Your task to perform on an android device: empty trash in the gmail app Image 0: 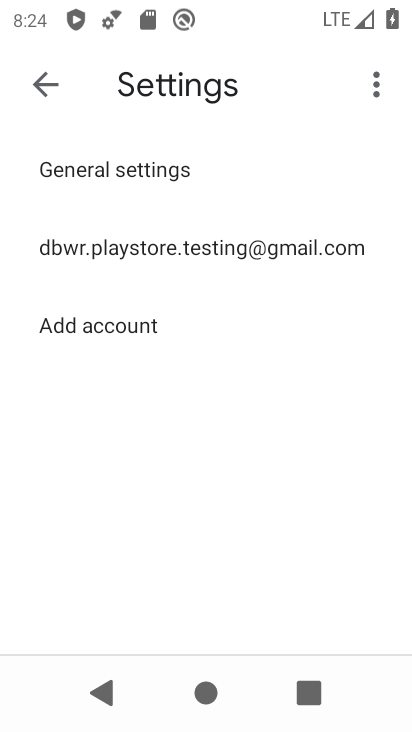
Step 0: drag from (199, 481) to (194, 247)
Your task to perform on an android device: empty trash in the gmail app Image 1: 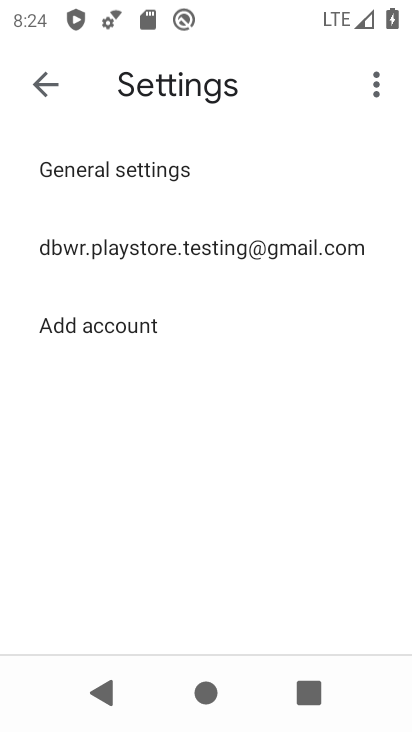
Step 1: click (209, 240)
Your task to perform on an android device: empty trash in the gmail app Image 2: 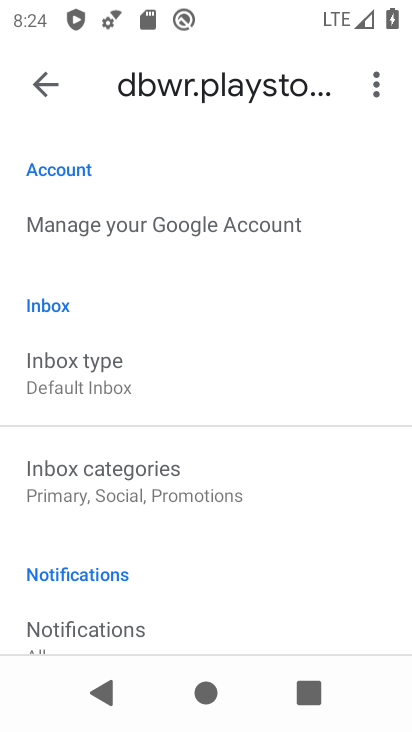
Step 2: click (26, 72)
Your task to perform on an android device: empty trash in the gmail app Image 3: 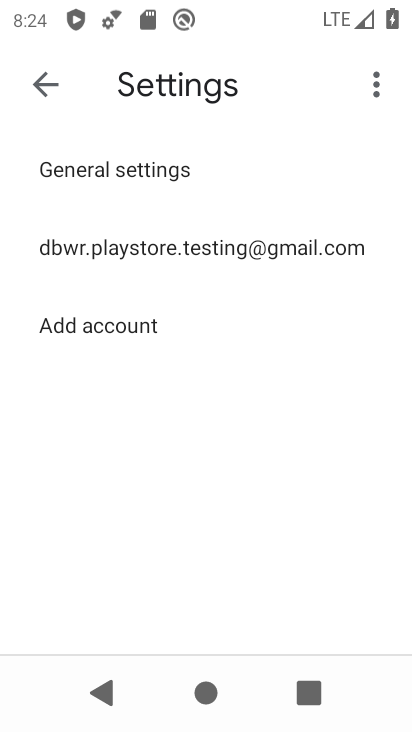
Step 3: click (32, 77)
Your task to perform on an android device: empty trash in the gmail app Image 4: 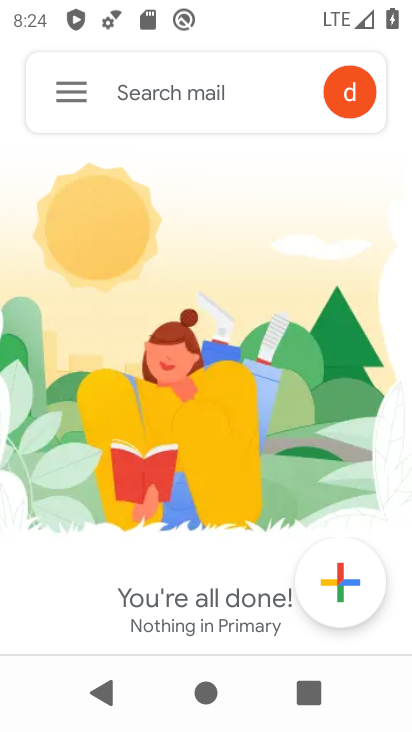
Step 4: click (78, 115)
Your task to perform on an android device: empty trash in the gmail app Image 5: 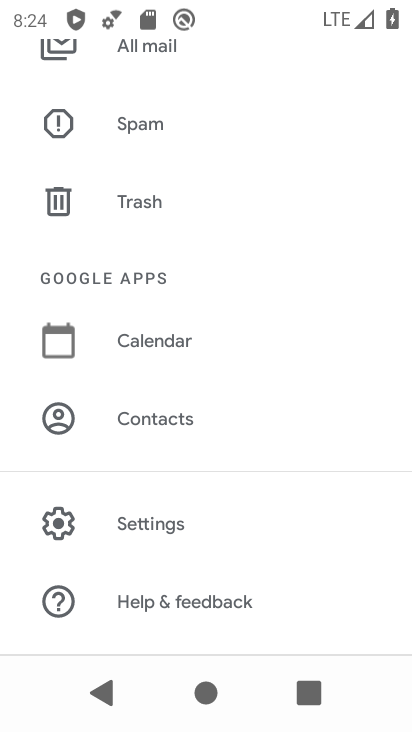
Step 5: click (158, 191)
Your task to perform on an android device: empty trash in the gmail app Image 6: 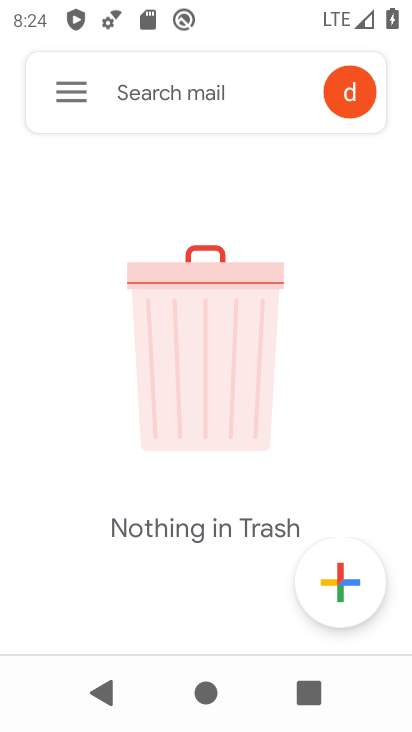
Step 6: task complete